Your task to perform on an android device: change the clock display to analog Image 0: 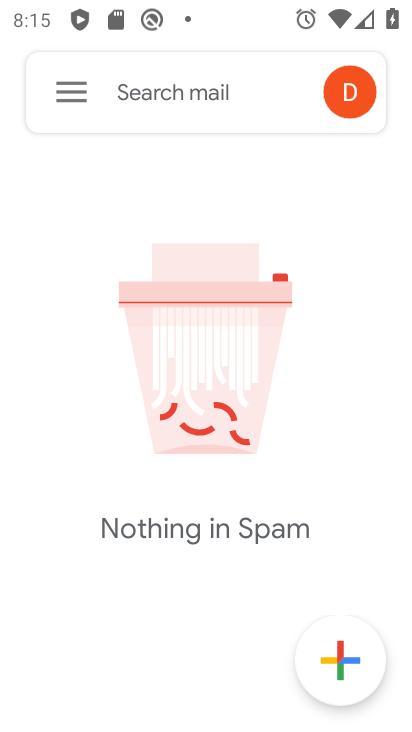
Step 0: press home button
Your task to perform on an android device: change the clock display to analog Image 1: 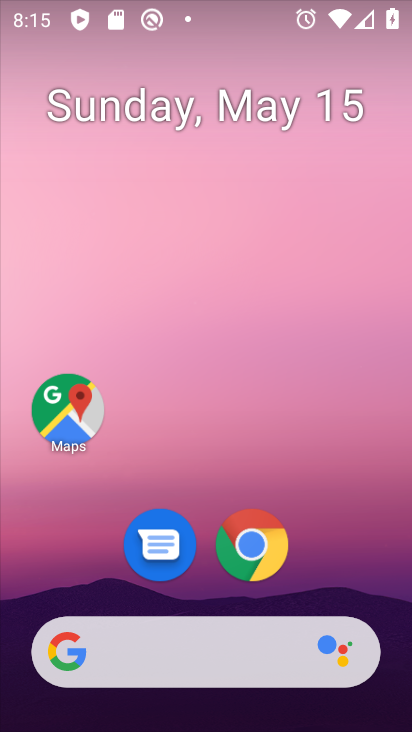
Step 1: drag from (356, 566) to (388, 105)
Your task to perform on an android device: change the clock display to analog Image 2: 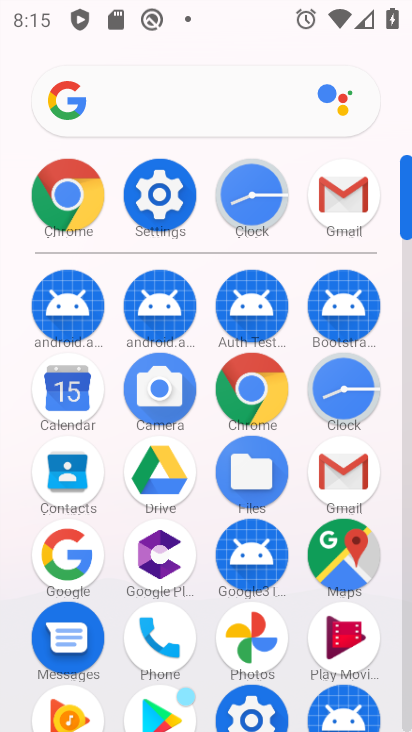
Step 2: click (365, 392)
Your task to perform on an android device: change the clock display to analog Image 3: 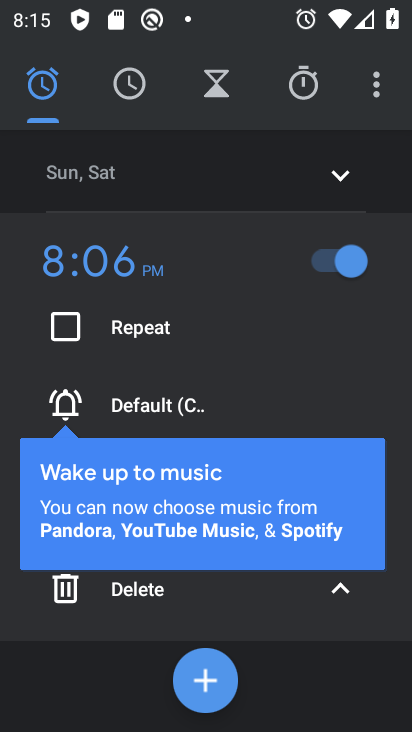
Step 3: click (373, 99)
Your task to perform on an android device: change the clock display to analog Image 4: 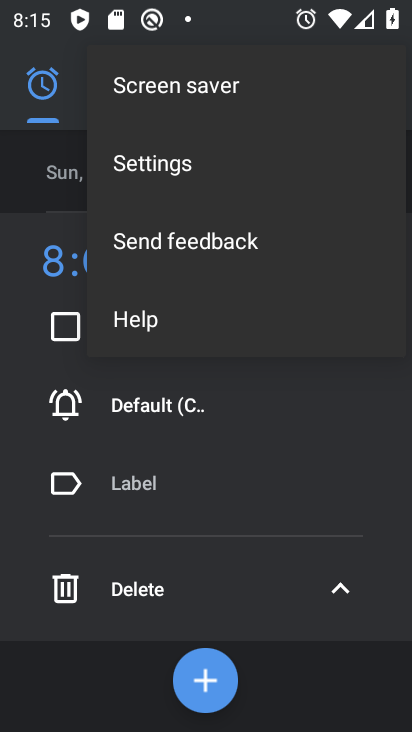
Step 4: click (184, 171)
Your task to perform on an android device: change the clock display to analog Image 5: 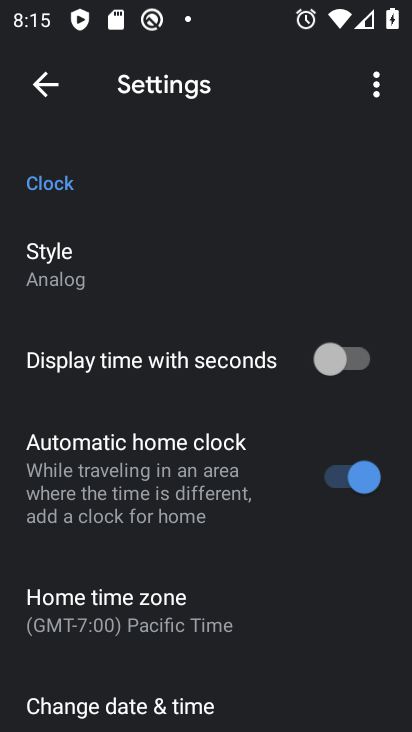
Step 5: task complete